Your task to perform on an android device: Go to ESPN.com Image 0: 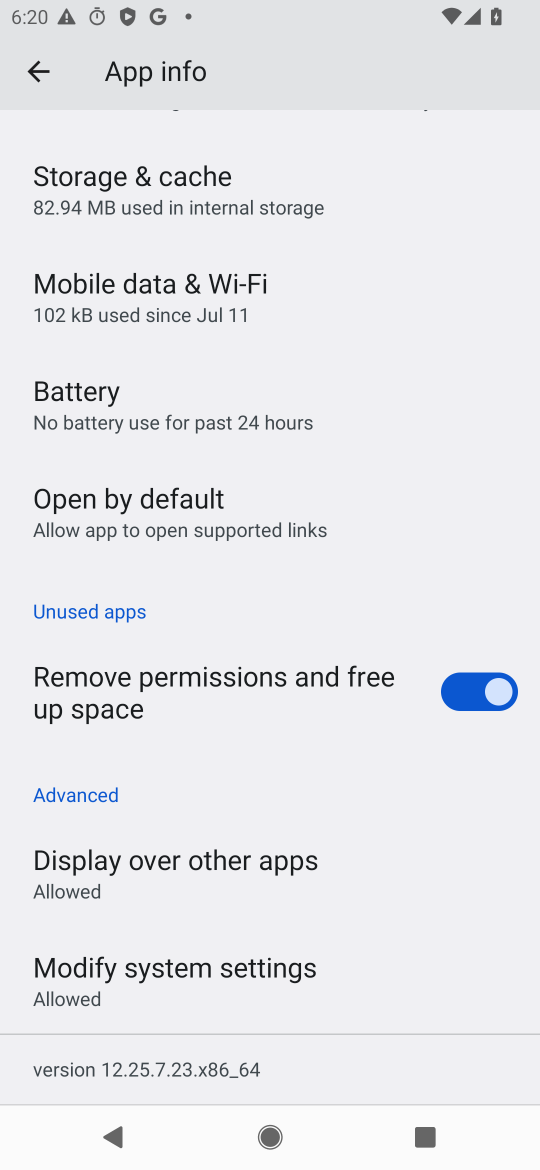
Step 0: press home button
Your task to perform on an android device: Go to ESPN.com Image 1: 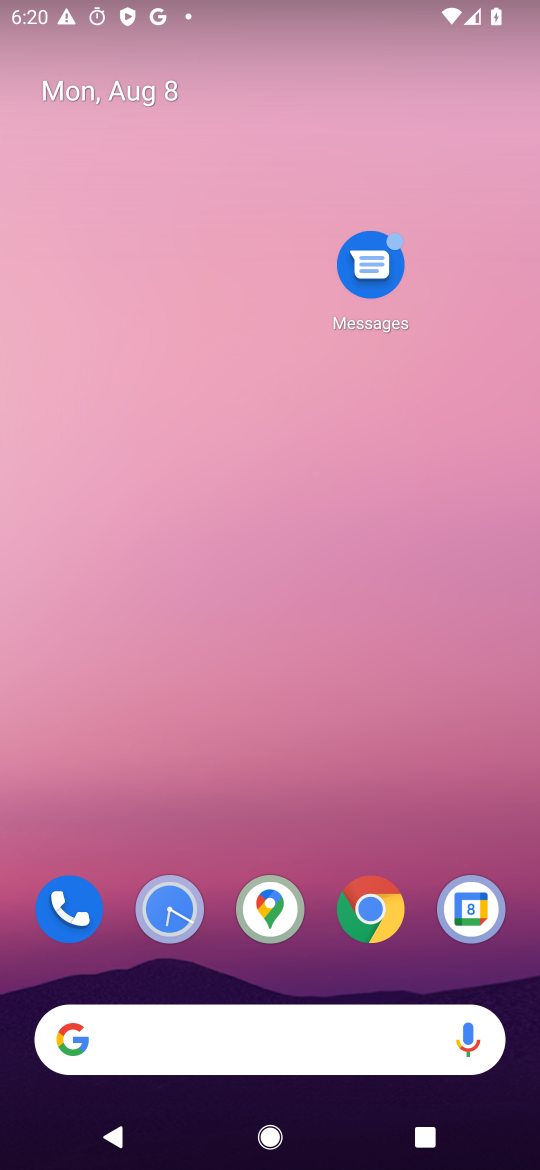
Step 1: click (378, 895)
Your task to perform on an android device: Go to ESPN.com Image 2: 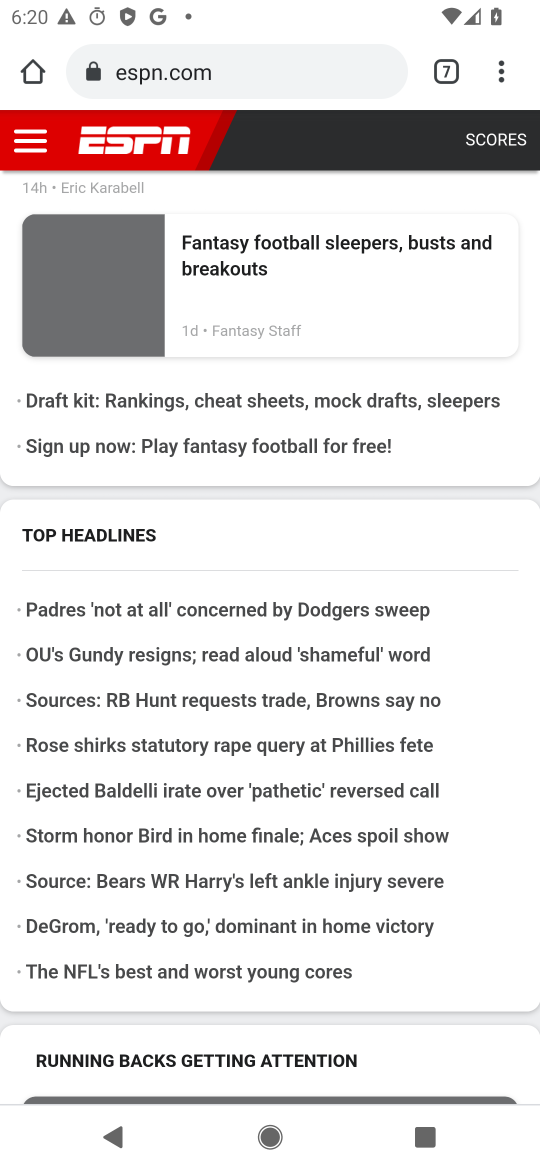
Step 2: task complete